Your task to perform on an android device: Open Google Maps Image 0: 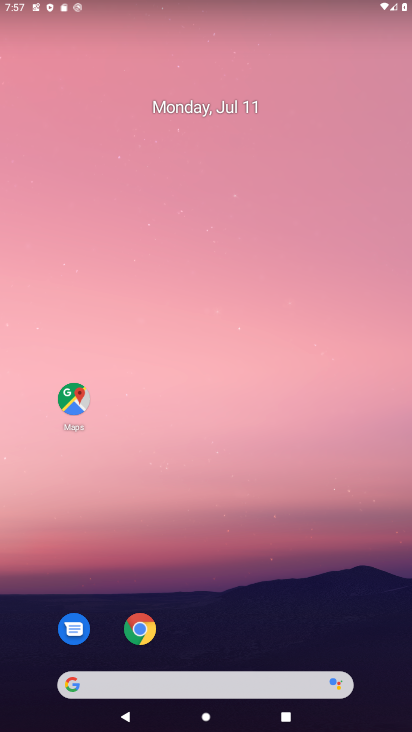
Step 0: click (76, 399)
Your task to perform on an android device: Open Google Maps Image 1: 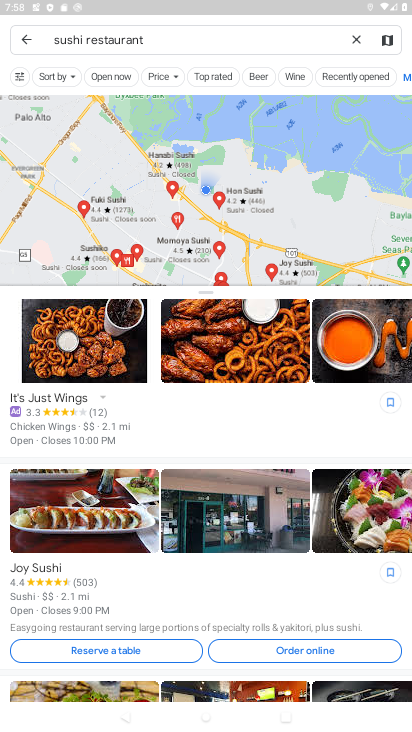
Step 1: task complete